Your task to perform on an android device: check android version Image 0: 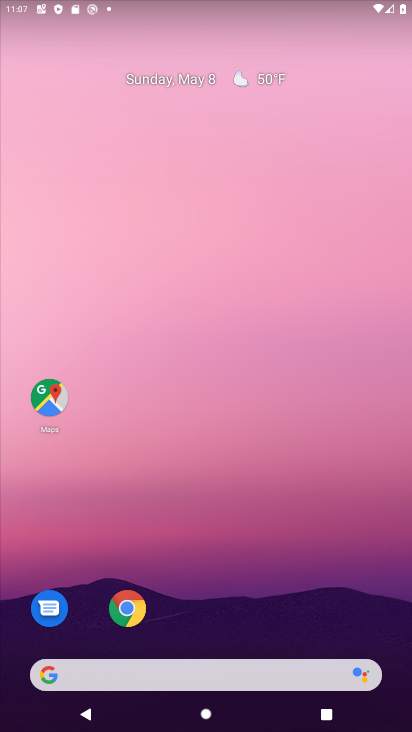
Step 0: click (215, 96)
Your task to perform on an android device: check android version Image 1: 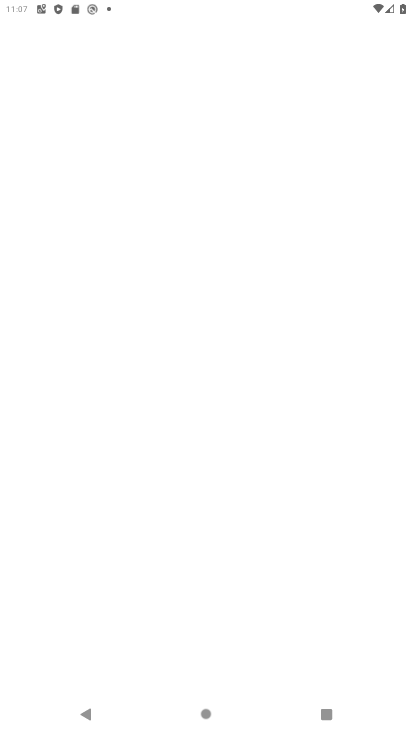
Step 1: click (55, 394)
Your task to perform on an android device: check android version Image 2: 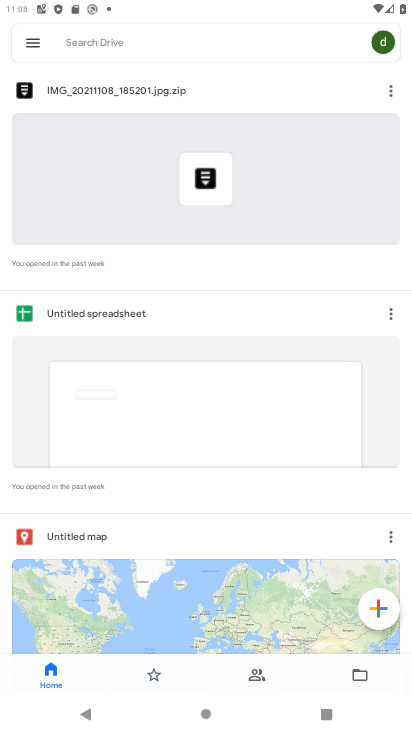
Step 2: press home button
Your task to perform on an android device: check android version Image 3: 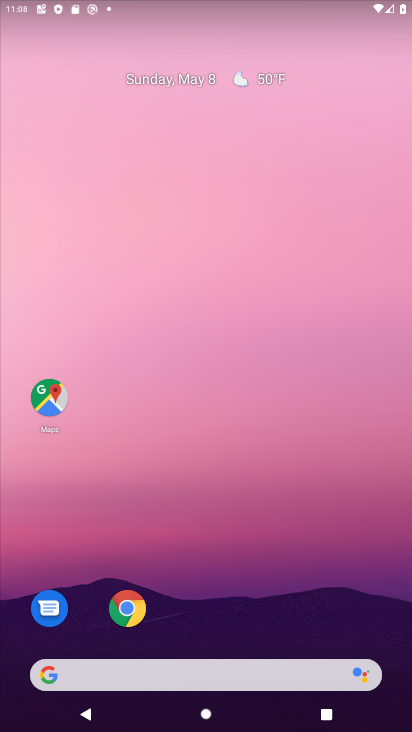
Step 3: drag from (275, 486) to (325, 6)
Your task to perform on an android device: check android version Image 4: 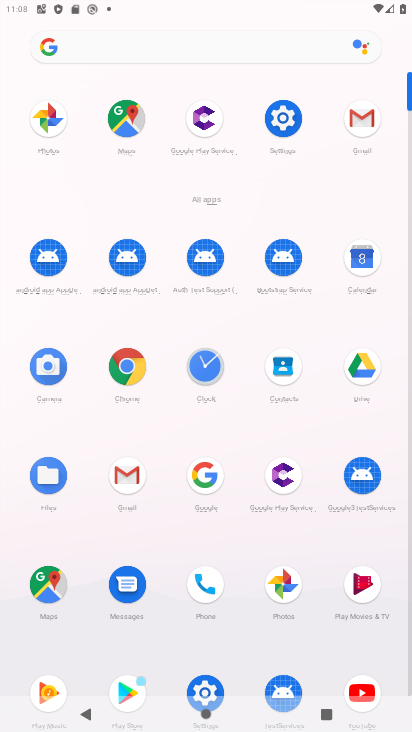
Step 4: click (296, 112)
Your task to perform on an android device: check android version Image 5: 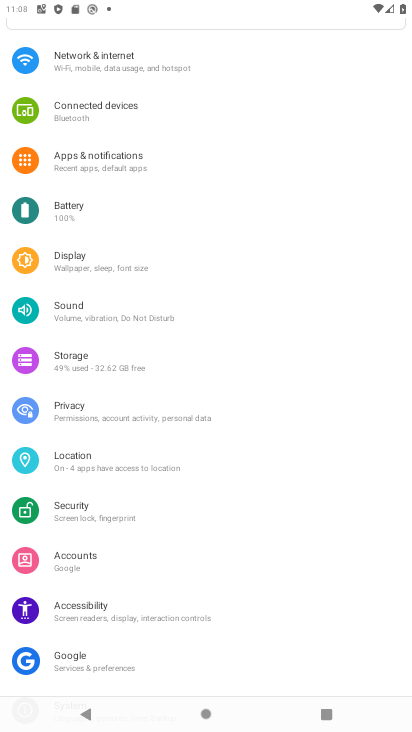
Step 5: drag from (234, 634) to (270, 114)
Your task to perform on an android device: check android version Image 6: 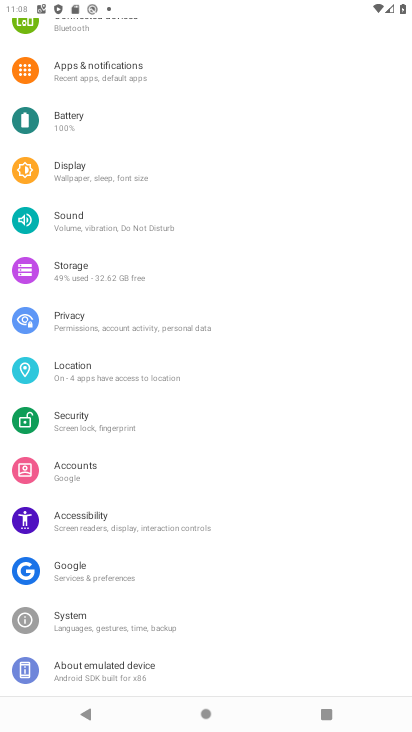
Step 6: click (152, 674)
Your task to perform on an android device: check android version Image 7: 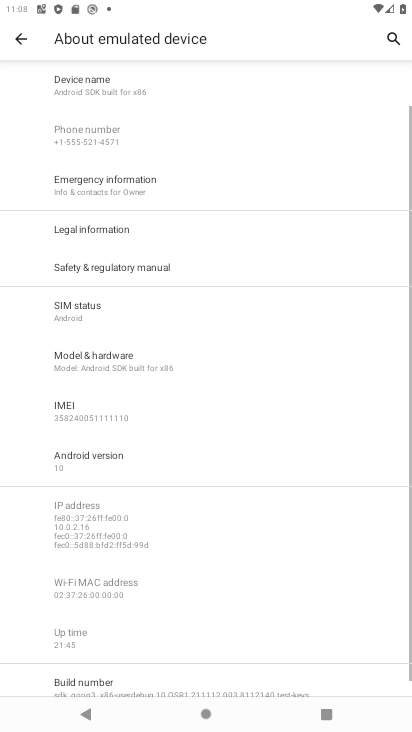
Step 7: drag from (152, 672) to (251, 183)
Your task to perform on an android device: check android version Image 8: 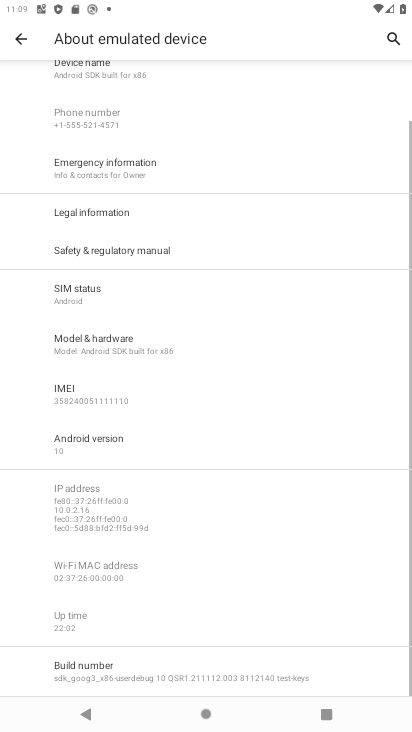
Step 8: click (65, 447)
Your task to perform on an android device: check android version Image 9: 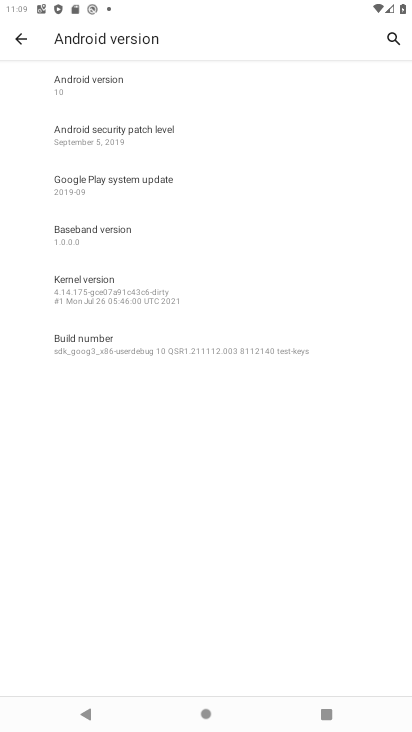
Step 9: task complete